Your task to perform on an android device: turn smart compose on in the gmail app Image 0: 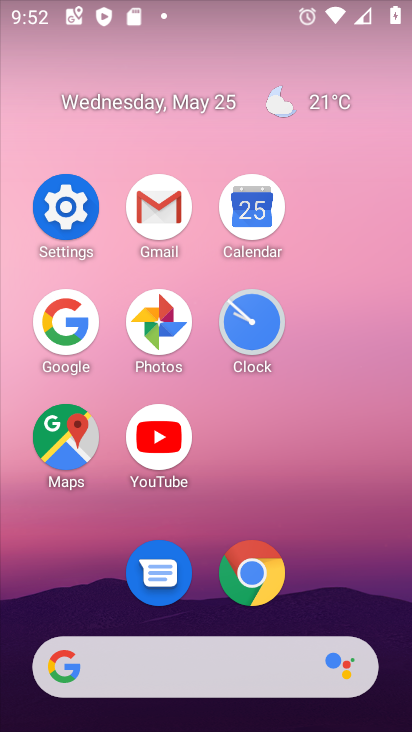
Step 0: click (135, 209)
Your task to perform on an android device: turn smart compose on in the gmail app Image 1: 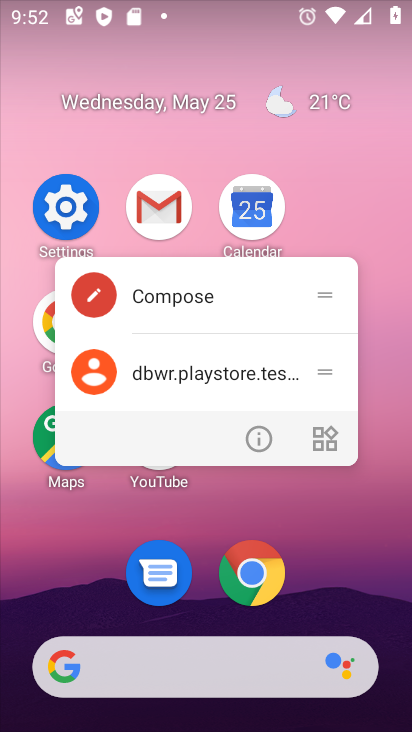
Step 1: click (145, 205)
Your task to perform on an android device: turn smart compose on in the gmail app Image 2: 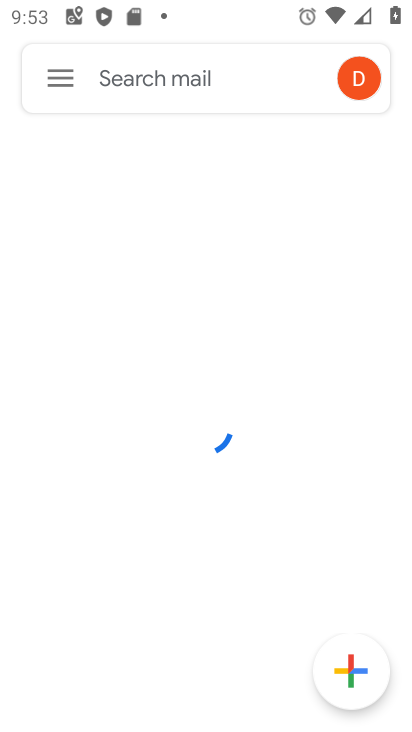
Step 2: click (33, 73)
Your task to perform on an android device: turn smart compose on in the gmail app Image 3: 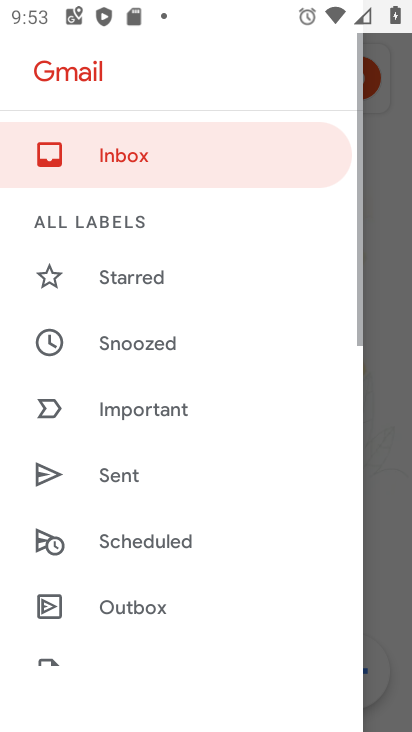
Step 3: drag from (243, 587) to (241, 225)
Your task to perform on an android device: turn smart compose on in the gmail app Image 4: 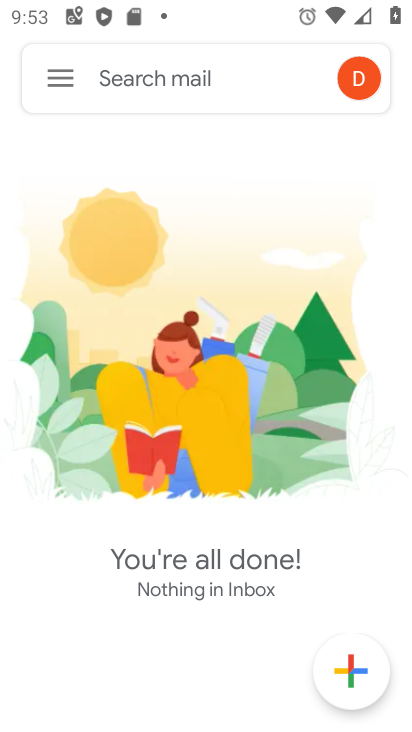
Step 4: click (62, 70)
Your task to perform on an android device: turn smart compose on in the gmail app Image 5: 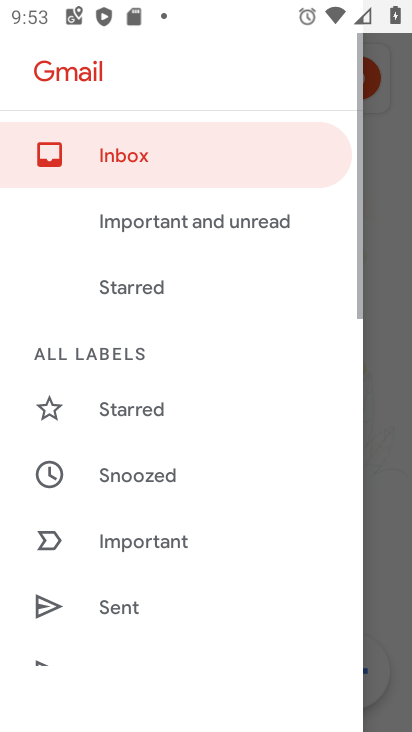
Step 5: drag from (294, 585) to (352, 115)
Your task to perform on an android device: turn smart compose on in the gmail app Image 6: 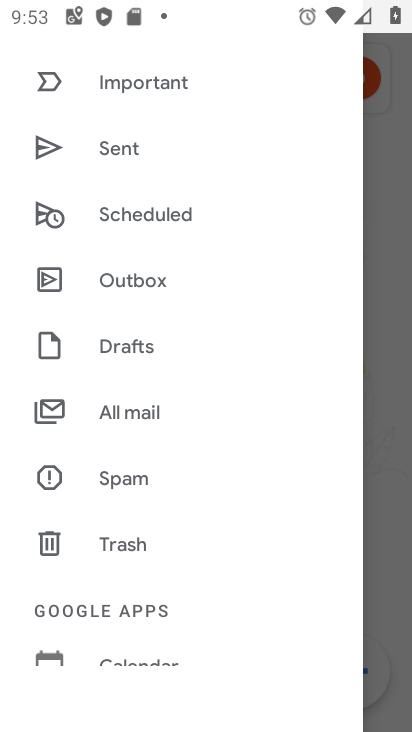
Step 6: drag from (209, 545) to (201, 238)
Your task to perform on an android device: turn smart compose on in the gmail app Image 7: 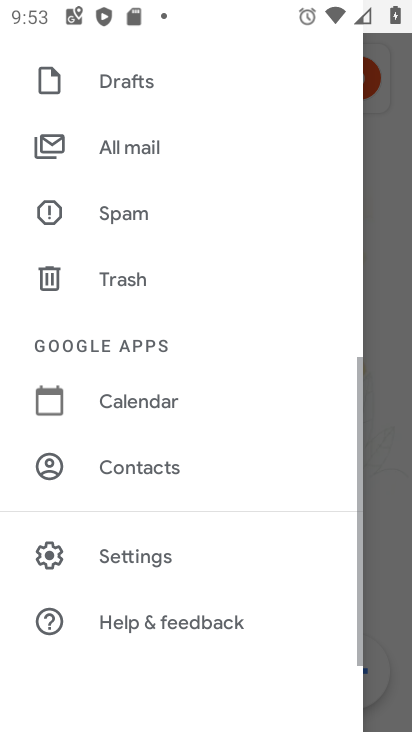
Step 7: click (160, 558)
Your task to perform on an android device: turn smart compose on in the gmail app Image 8: 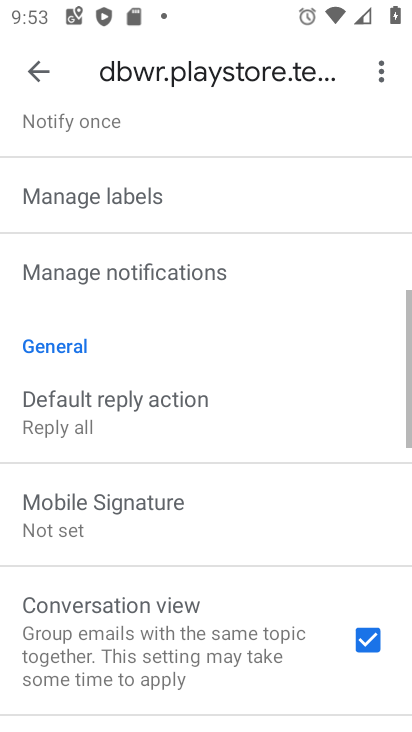
Step 8: task complete